Your task to perform on an android device: open a new tab in the chrome app Image 0: 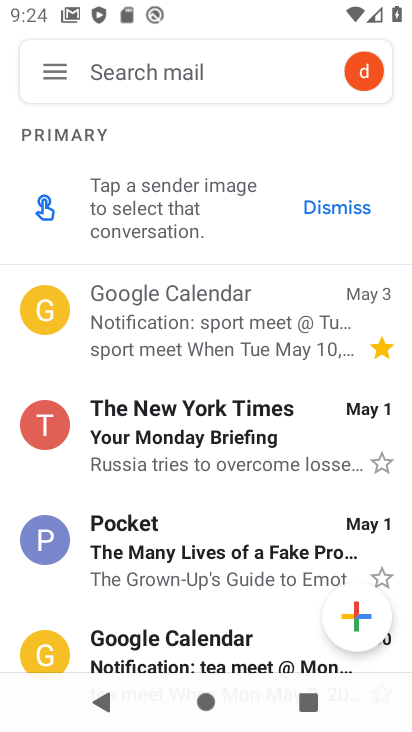
Step 0: press home button
Your task to perform on an android device: open a new tab in the chrome app Image 1: 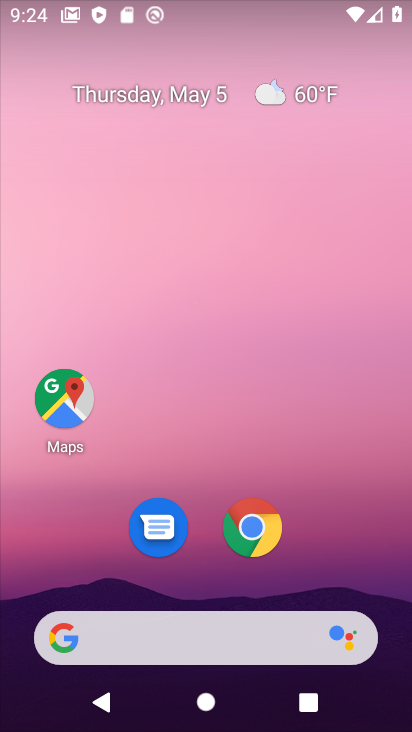
Step 1: drag from (200, 588) to (258, 58)
Your task to perform on an android device: open a new tab in the chrome app Image 2: 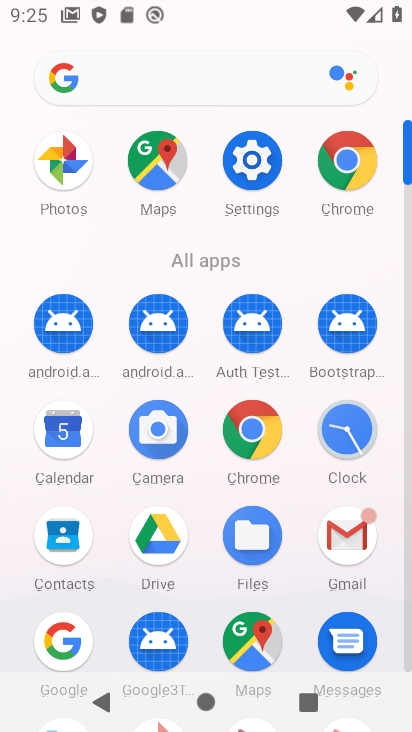
Step 2: click (248, 429)
Your task to perform on an android device: open a new tab in the chrome app Image 3: 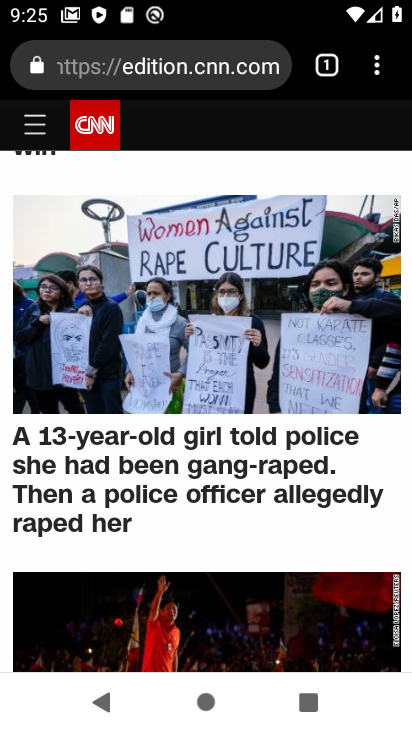
Step 3: task complete